Your task to perform on an android device: turn off notifications settings in the gmail app Image 0: 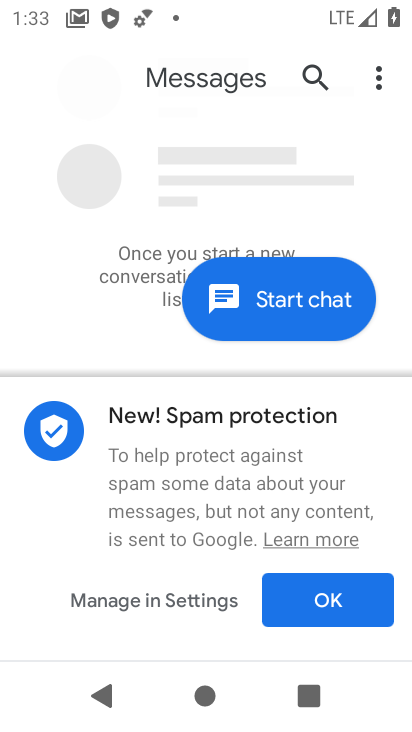
Step 0: press home button
Your task to perform on an android device: turn off notifications settings in the gmail app Image 1: 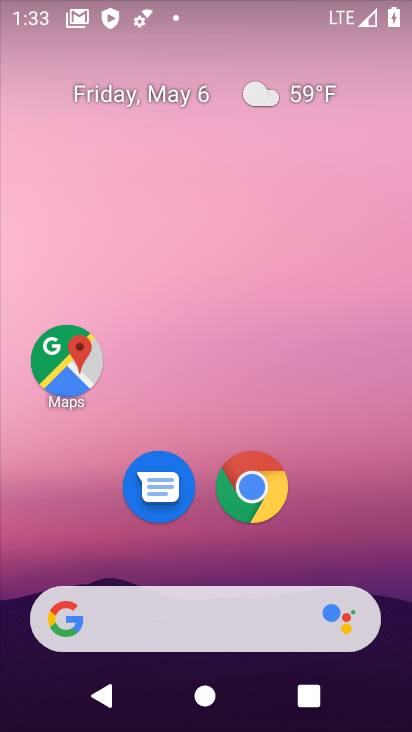
Step 1: drag from (207, 611) to (237, 157)
Your task to perform on an android device: turn off notifications settings in the gmail app Image 2: 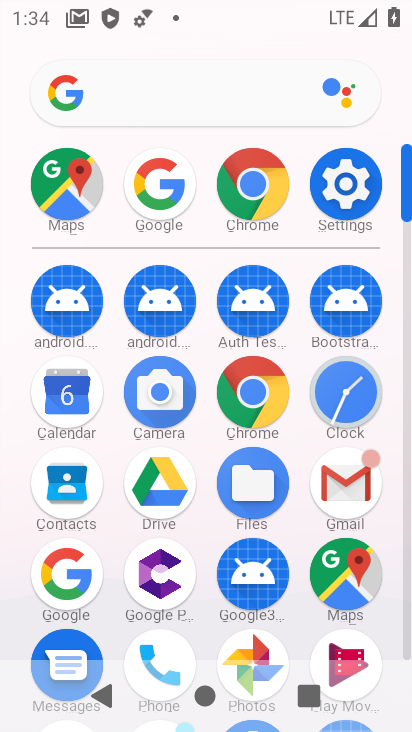
Step 2: click (342, 488)
Your task to perform on an android device: turn off notifications settings in the gmail app Image 3: 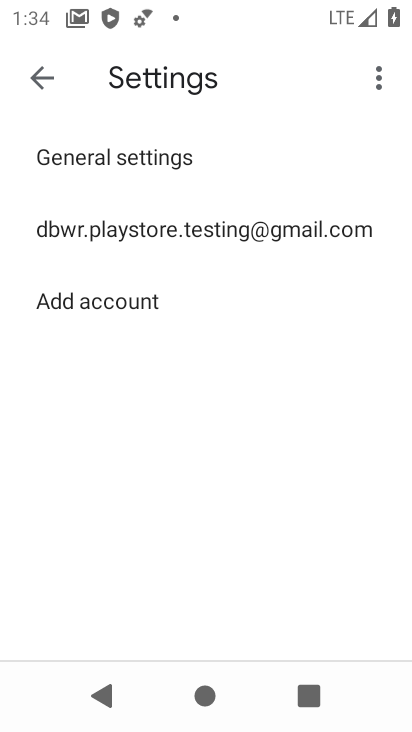
Step 3: click (182, 160)
Your task to perform on an android device: turn off notifications settings in the gmail app Image 4: 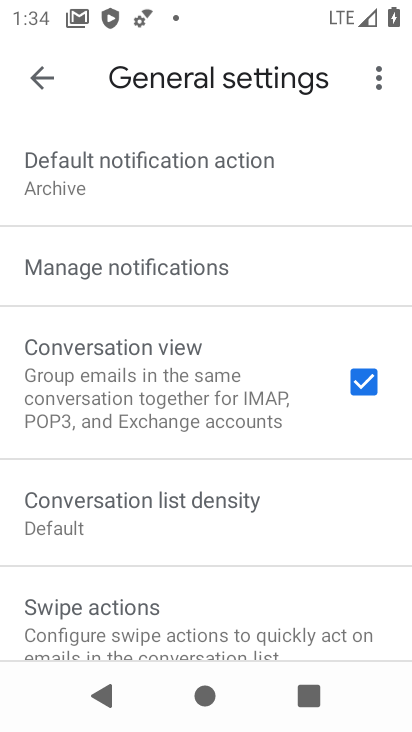
Step 4: click (172, 259)
Your task to perform on an android device: turn off notifications settings in the gmail app Image 5: 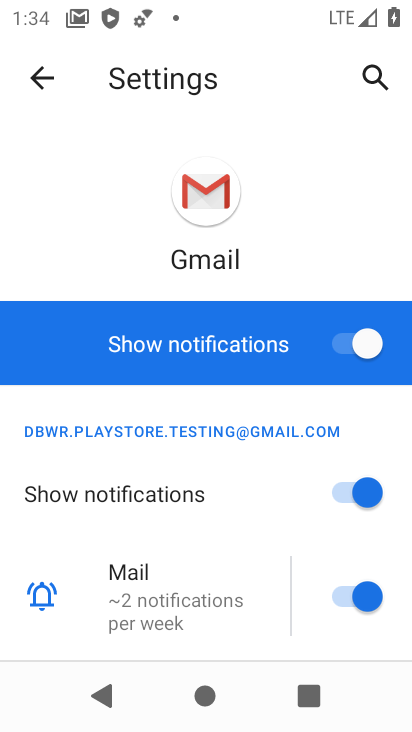
Step 5: click (342, 352)
Your task to perform on an android device: turn off notifications settings in the gmail app Image 6: 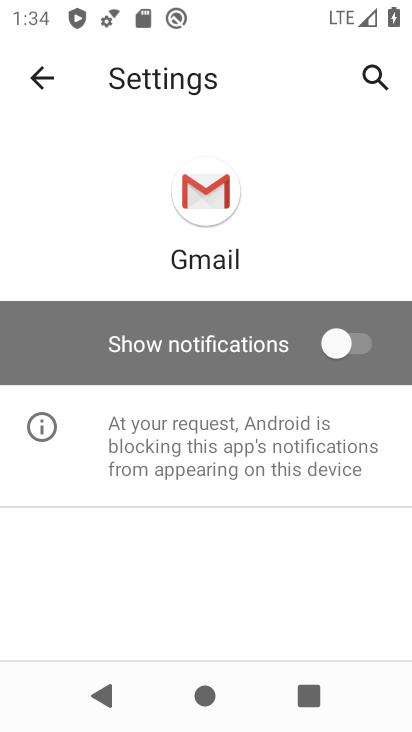
Step 6: task complete